Your task to perform on an android device: Open Google Chrome and open the bookmarks view Image 0: 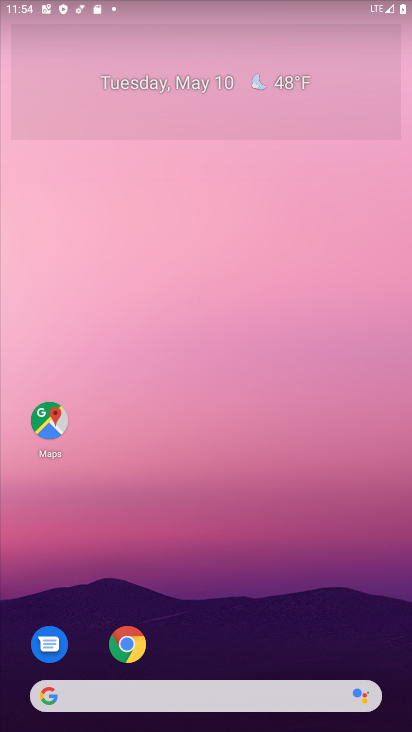
Step 0: click (133, 643)
Your task to perform on an android device: Open Google Chrome and open the bookmarks view Image 1: 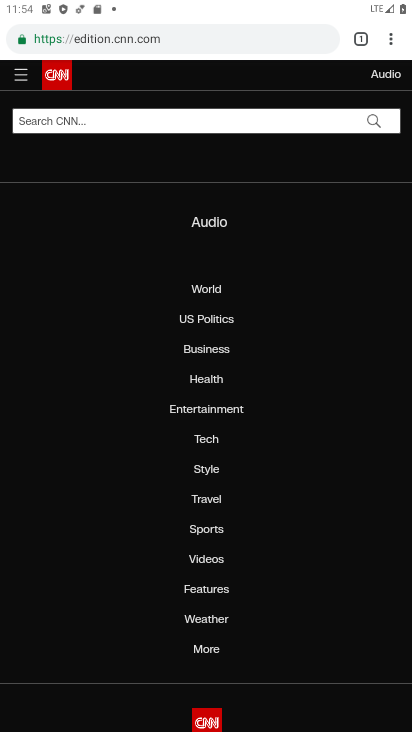
Step 1: click (397, 47)
Your task to perform on an android device: Open Google Chrome and open the bookmarks view Image 2: 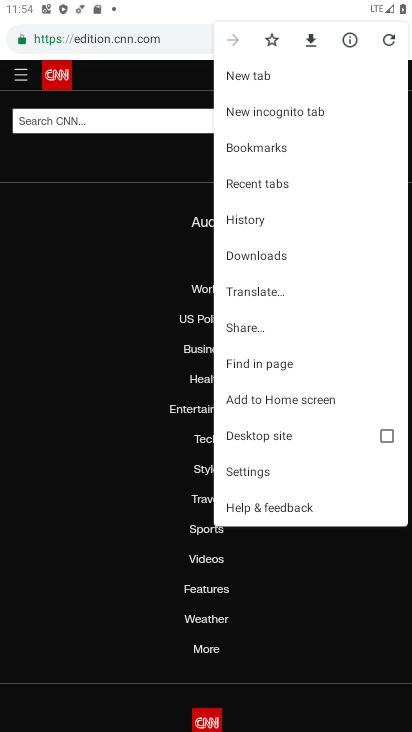
Step 2: click (264, 146)
Your task to perform on an android device: Open Google Chrome and open the bookmarks view Image 3: 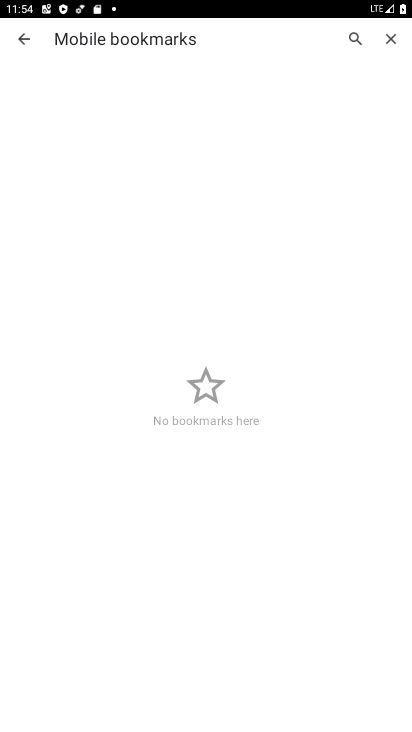
Step 3: task complete